Your task to perform on an android device: toggle pop-ups in chrome Image 0: 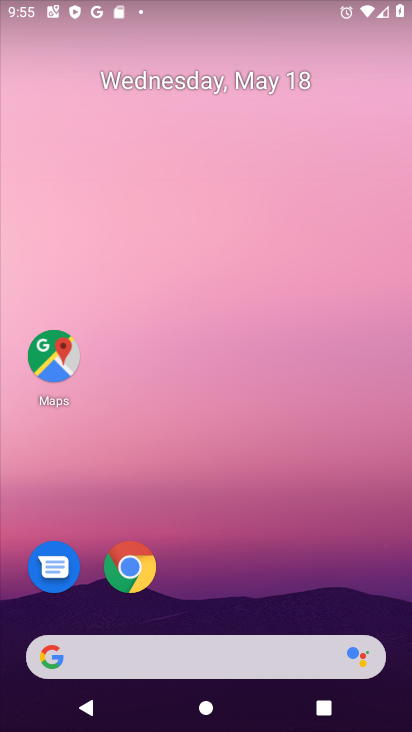
Step 0: click (145, 566)
Your task to perform on an android device: toggle pop-ups in chrome Image 1: 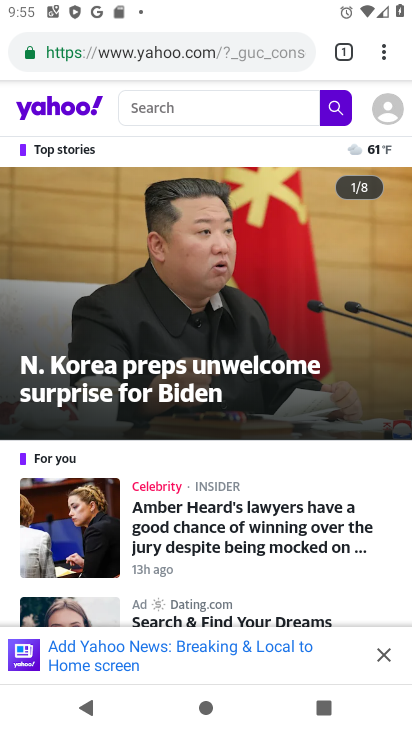
Step 1: drag from (387, 51) to (238, 611)
Your task to perform on an android device: toggle pop-ups in chrome Image 2: 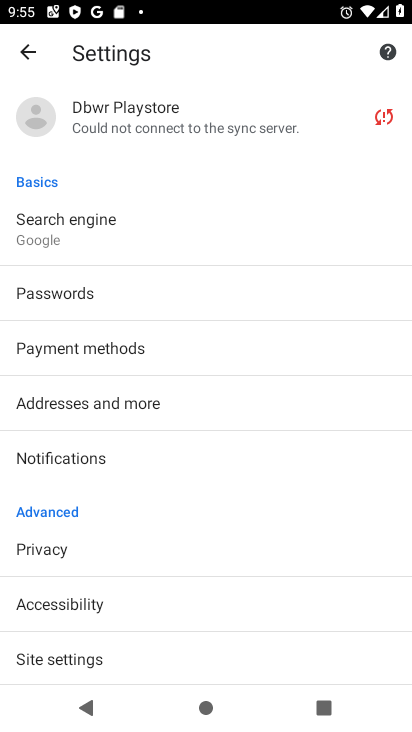
Step 2: click (79, 660)
Your task to perform on an android device: toggle pop-ups in chrome Image 3: 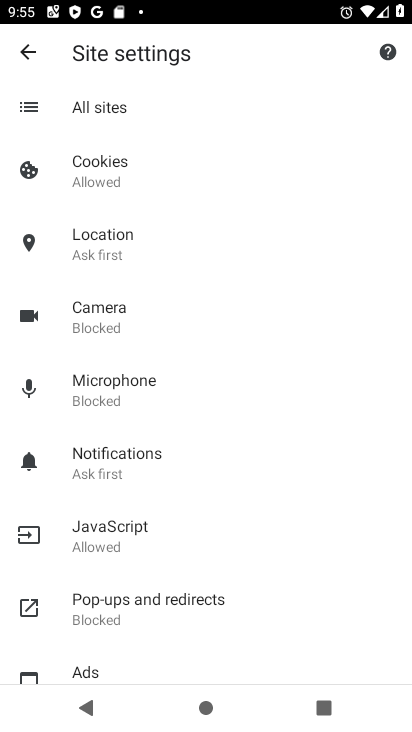
Step 3: click (109, 606)
Your task to perform on an android device: toggle pop-ups in chrome Image 4: 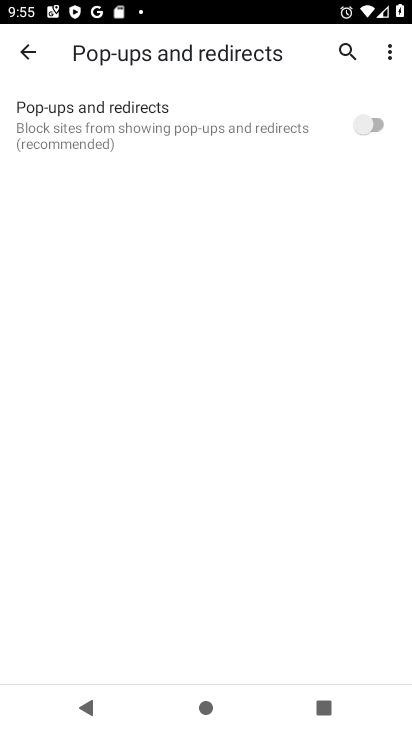
Step 4: click (372, 130)
Your task to perform on an android device: toggle pop-ups in chrome Image 5: 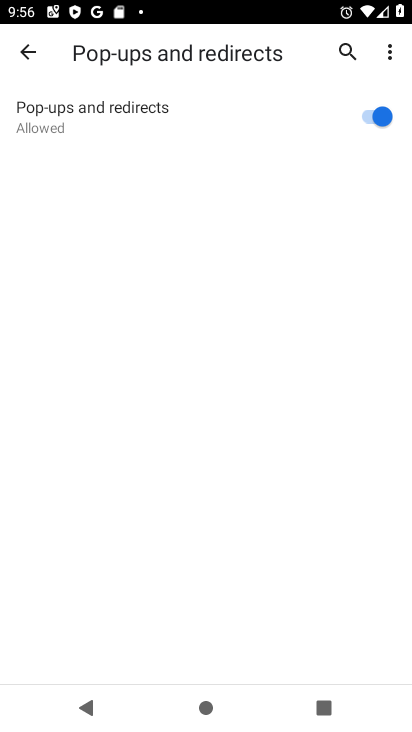
Step 5: task complete